Your task to perform on an android device: Go to settings Image 0: 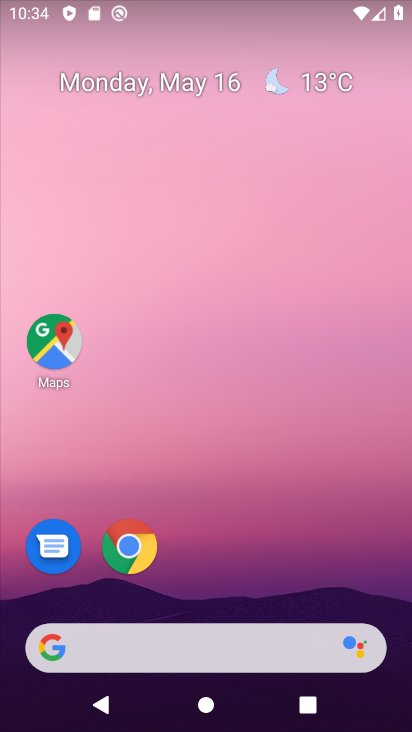
Step 0: drag from (289, 543) to (263, 41)
Your task to perform on an android device: Go to settings Image 1: 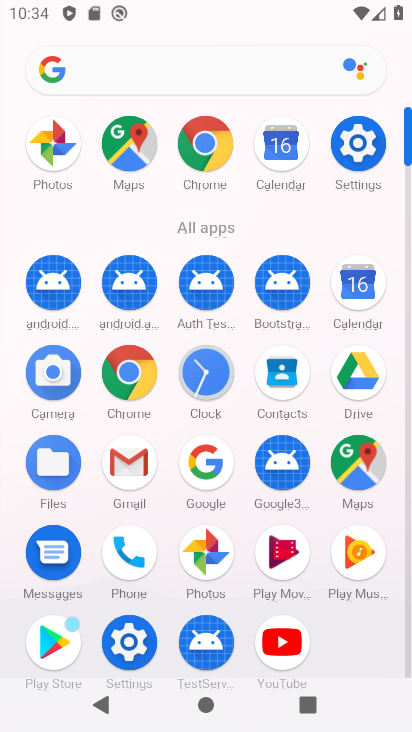
Step 1: click (348, 163)
Your task to perform on an android device: Go to settings Image 2: 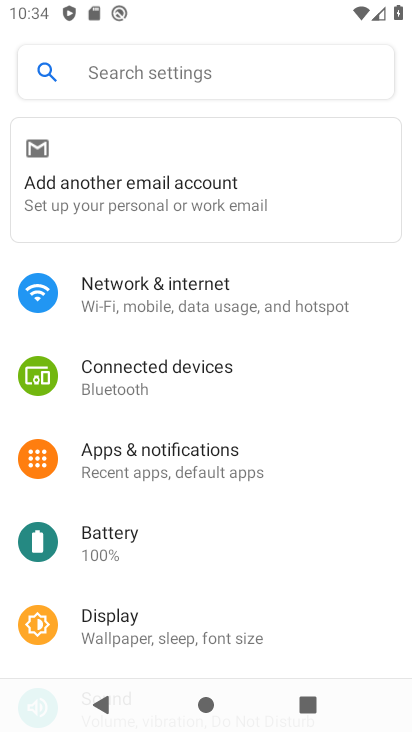
Step 2: task complete